Your task to perform on an android device: turn pop-ups off in chrome Image 0: 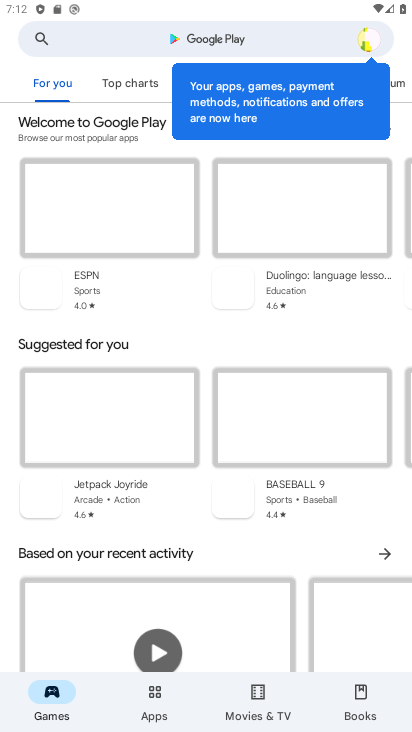
Step 0: press home button
Your task to perform on an android device: turn pop-ups off in chrome Image 1: 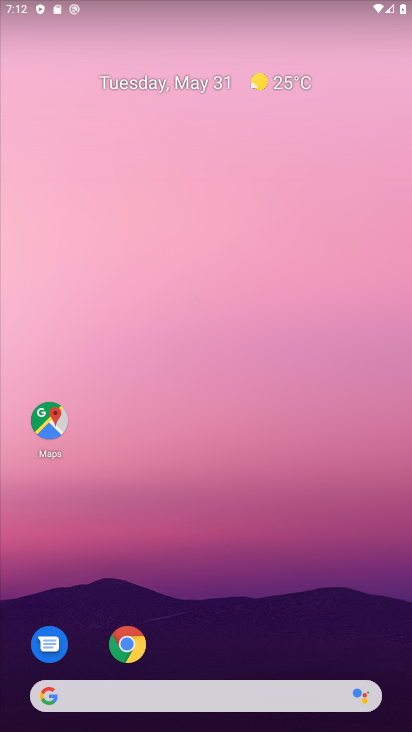
Step 1: drag from (233, 711) to (224, 348)
Your task to perform on an android device: turn pop-ups off in chrome Image 2: 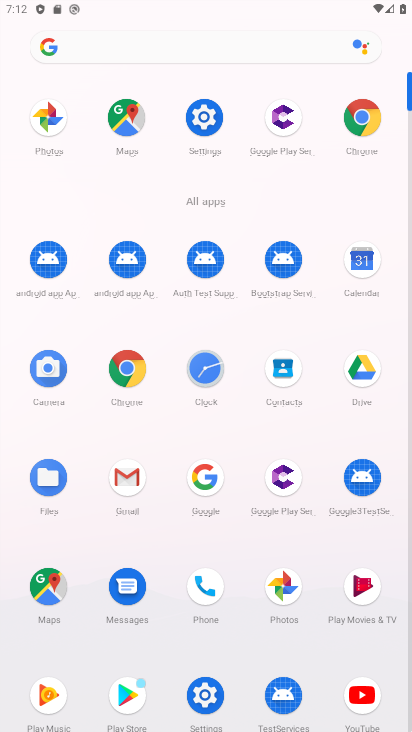
Step 2: click (130, 367)
Your task to perform on an android device: turn pop-ups off in chrome Image 3: 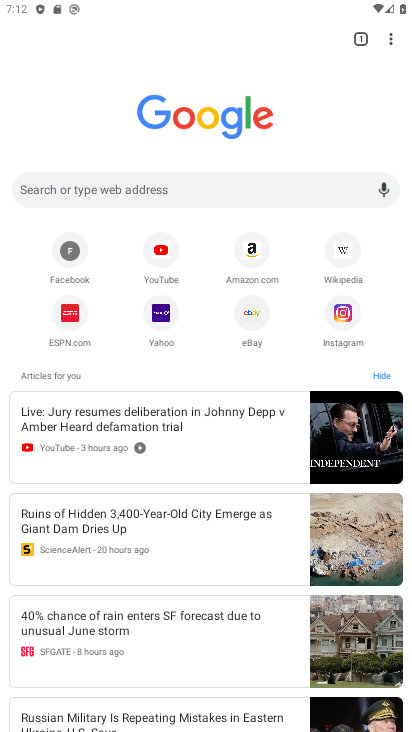
Step 3: click (387, 42)
Your task to perform on an android device: turn pop-ups off in chrome Image 4: 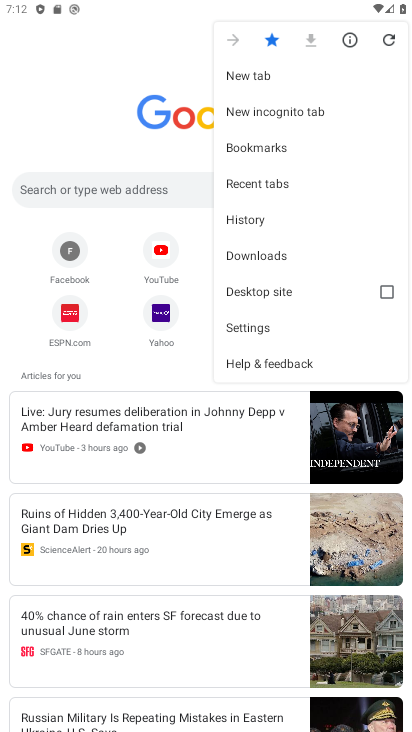
Step 4: click (246, 325)
Your task to perform on an android device: turn pop-ups off in chrome Image 5: 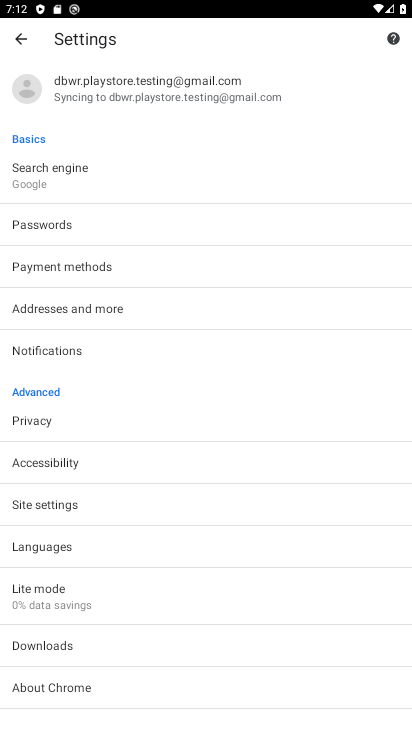
Step 5: click (67, 501)
Your task to perform on an android device: turn pop-ups off in chrome Image 6: 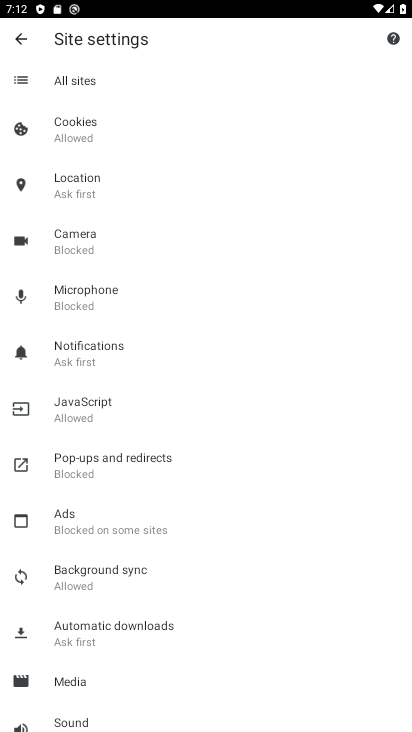
Step 6: click (93, 459)
Your task to perform on an android device: turn pop-ups off in chrome Image 7: 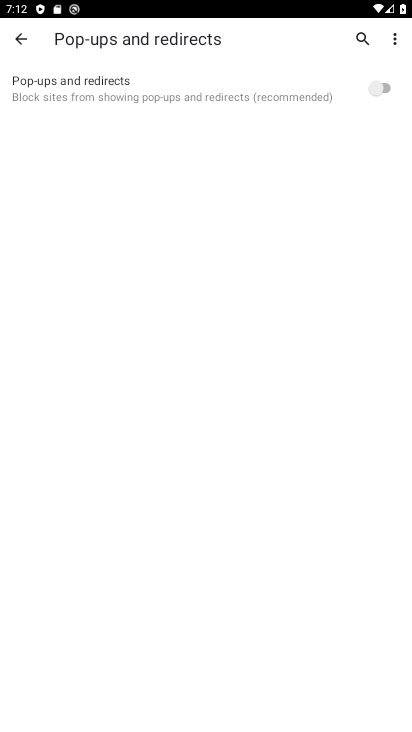
Step 7: click (382, 93)
Your task to perform on an android device: turn pop-ups off in chrome Image 8: 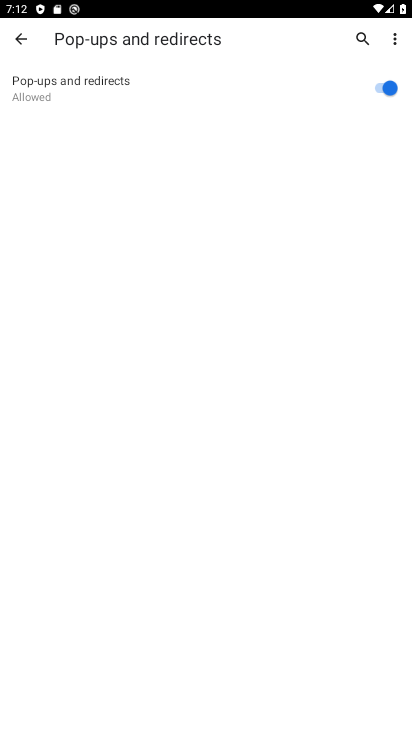
Step 8: task complete